Your task to perform on an android device: find which apps use the phone's location Image 0: 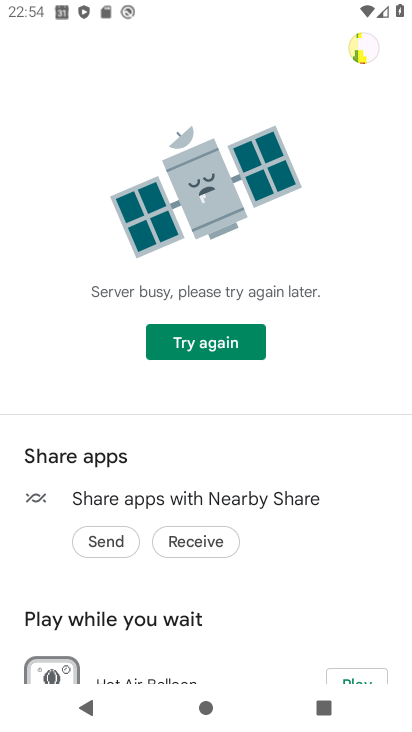
Step 0: press back button
Your task to perform on an android device: find which apps use the phone's location Image 1: 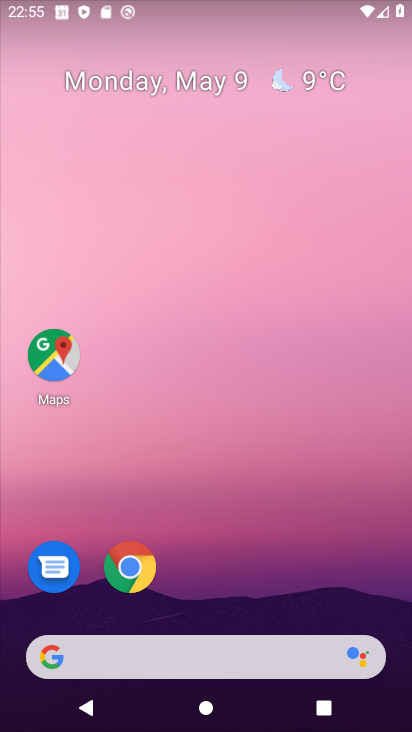
Step 1: drag from (247, 542) to (251, 35)
Your task to perform on an android device: find which apps use the phone's location Image 2: 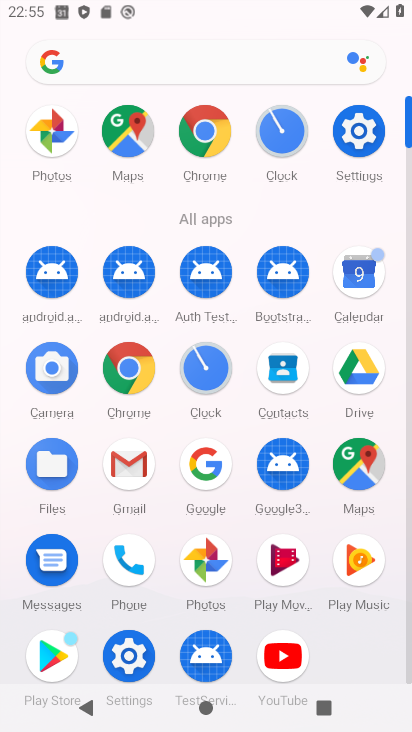
Step 2: click (358, 131)
Your task to perform on an android device: find which apps use the phone's location Image 3: 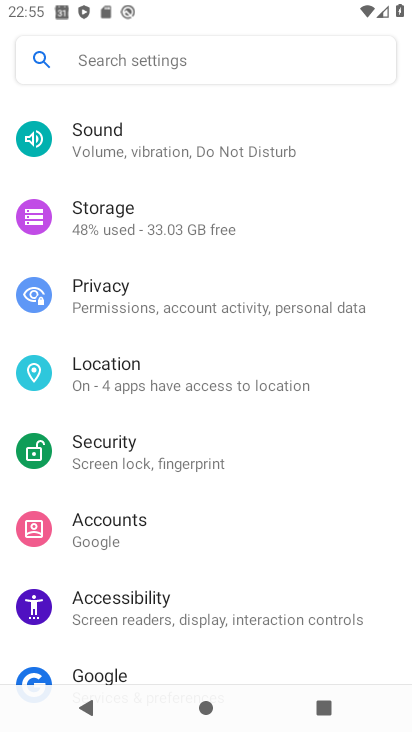
Step 3: click (103, 365)
Your task to perform on an android device: find which apps use the phone's location Image 4: 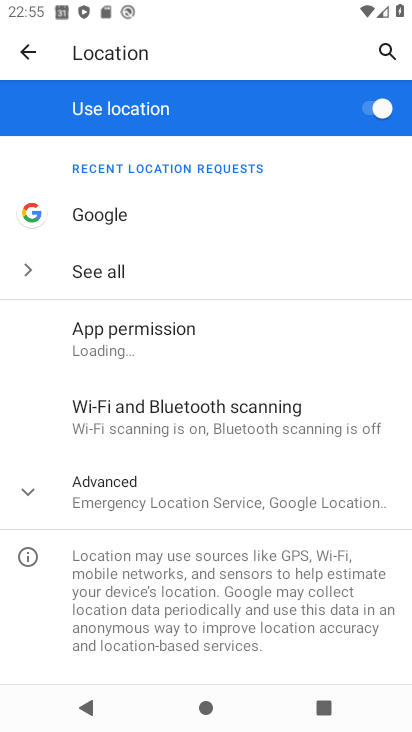
Step 4: click (100, 331)
Your task to perform on an android device: find which apps use the phone's location Image 5: 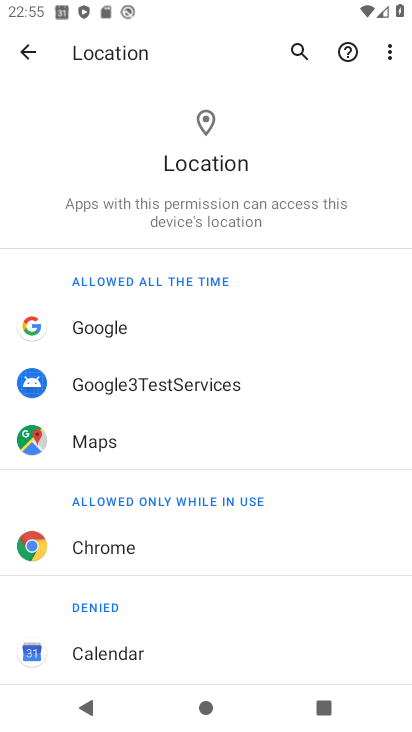
Step 5: click (92, 440)
Your task to perform on an android device: find which apps use the phone's location Image 6: 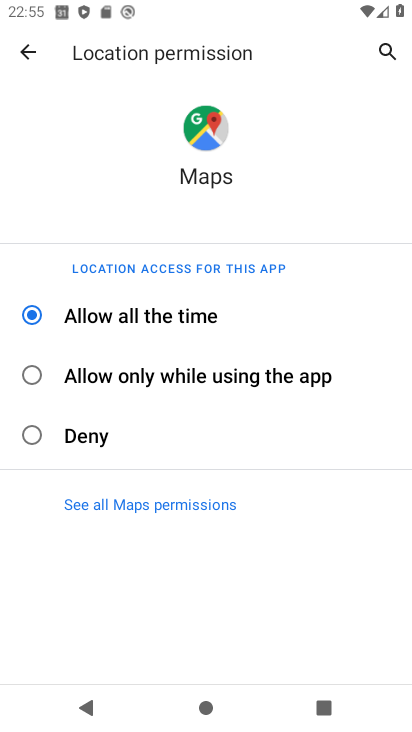
Step 6: click (103, 309)
Your task to perform on an android device: find which apps use the phone's location Image 7: 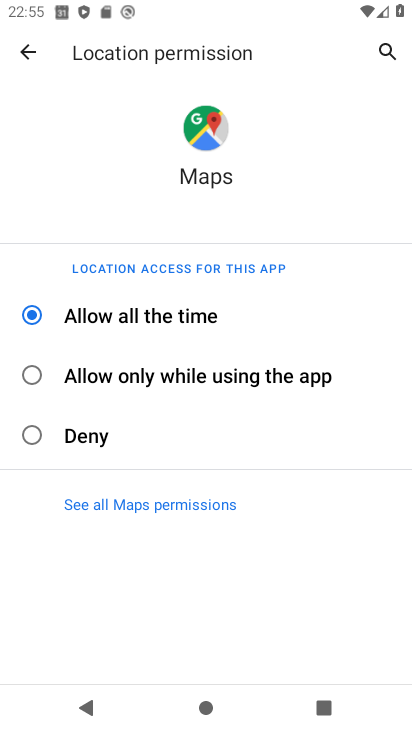
Step 7: task complete